Your task to perform on an android device: Open accessibility settings Image 0: 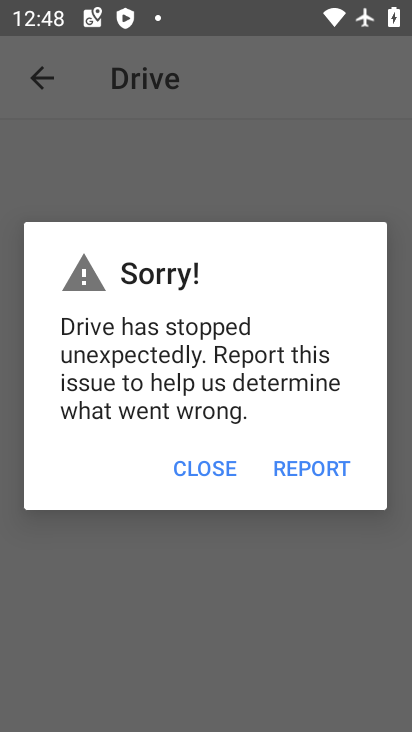
Step 0: press home button
Your task to perform on an android device: Open accessibility settings Image 1: 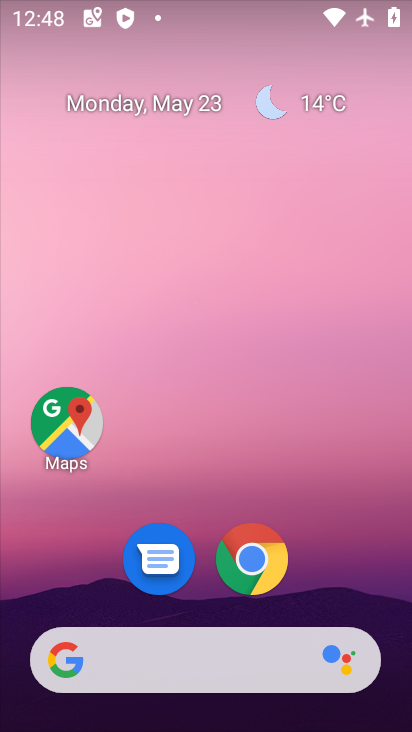
Step 1: drag from (363, 620) to (377, 5)
Your task to perform on an android device: Open accessibility settings Image 2: 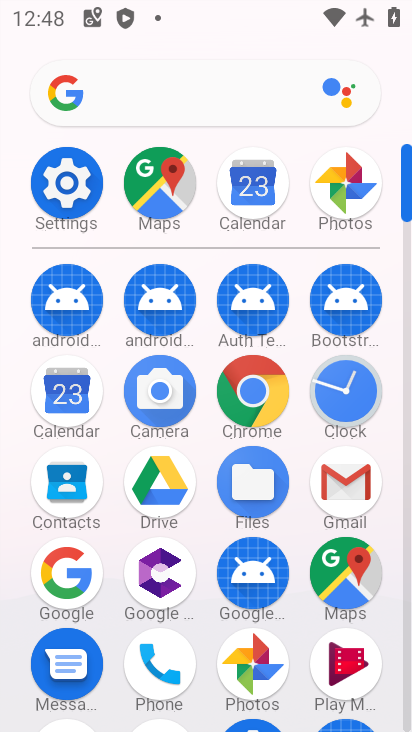
Step 2: click (72, 194)
Your task to perform on an android device: Open accessibility settings Image 3: 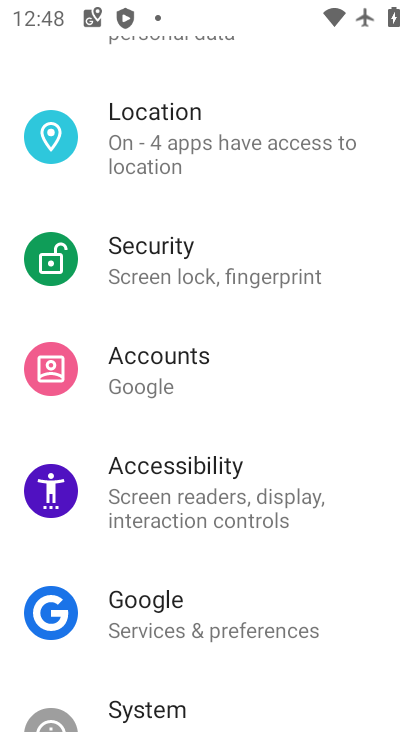
Step 3: click (216, 500)
Your task to perform on an android device: Open accessibility settings Image 4: 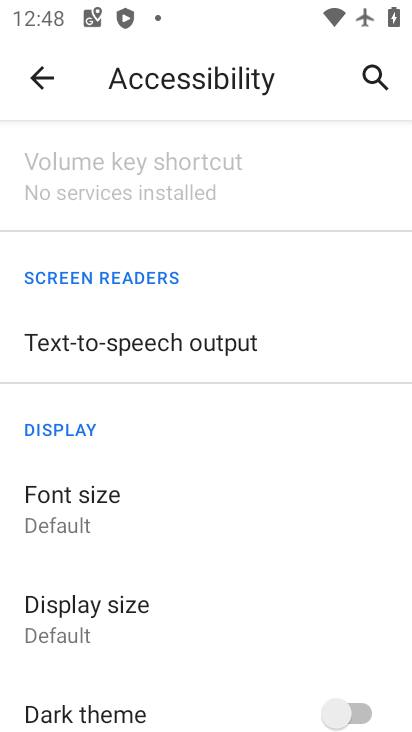
Step 4: task complete